Your task to perform on an android device: Open calendar and show me the fourth week of next month Image 0: 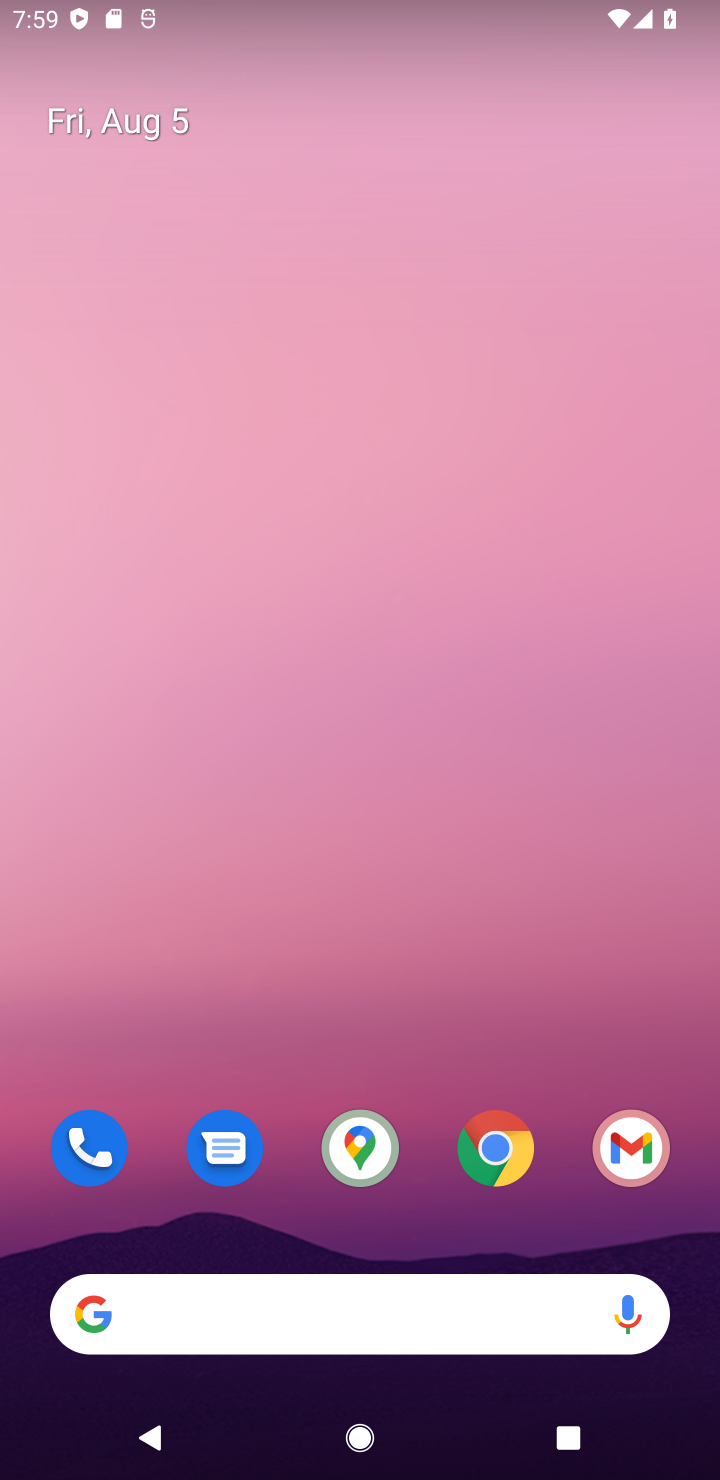
Step 0: drag from (290, 1236) to (350, 495)
Your task to perform on an android device: Open calendar and show me the fourth week of next month Image 1: 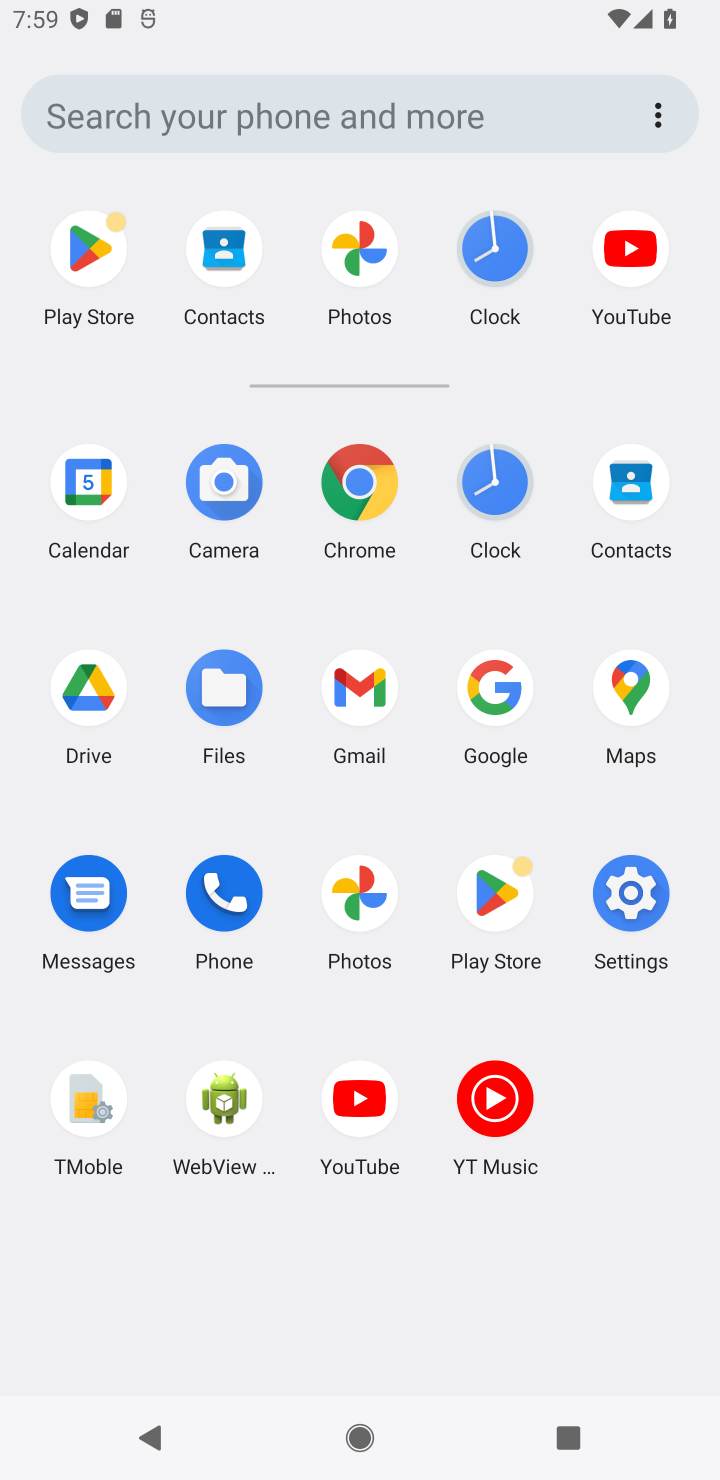
Step 1: click (85, 513)
Your task to perform on an android device: Open calendar and show me the fourth week of next month Image 2: 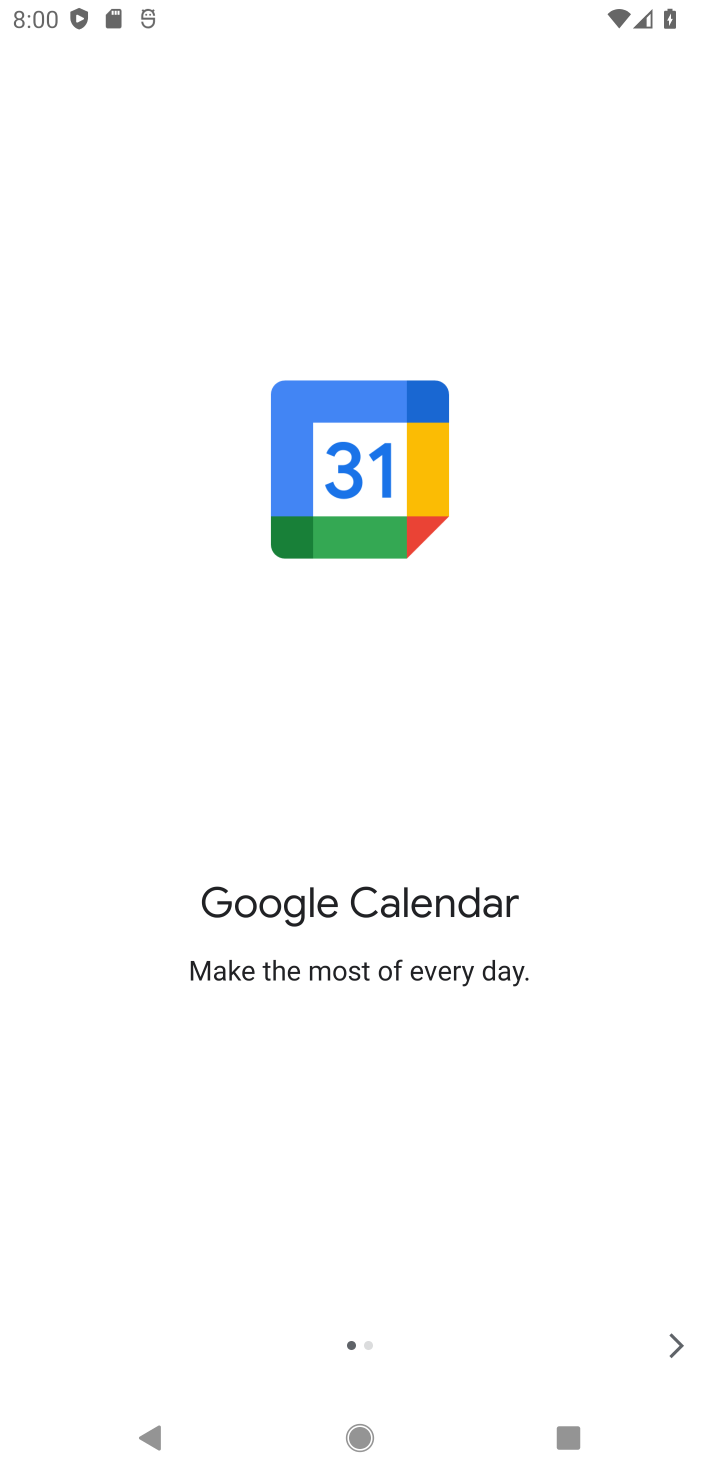
Step 2: click (664, 1338)
Your task to perform on an android device: Open calendar and show me the fourth week of next month Image 3: 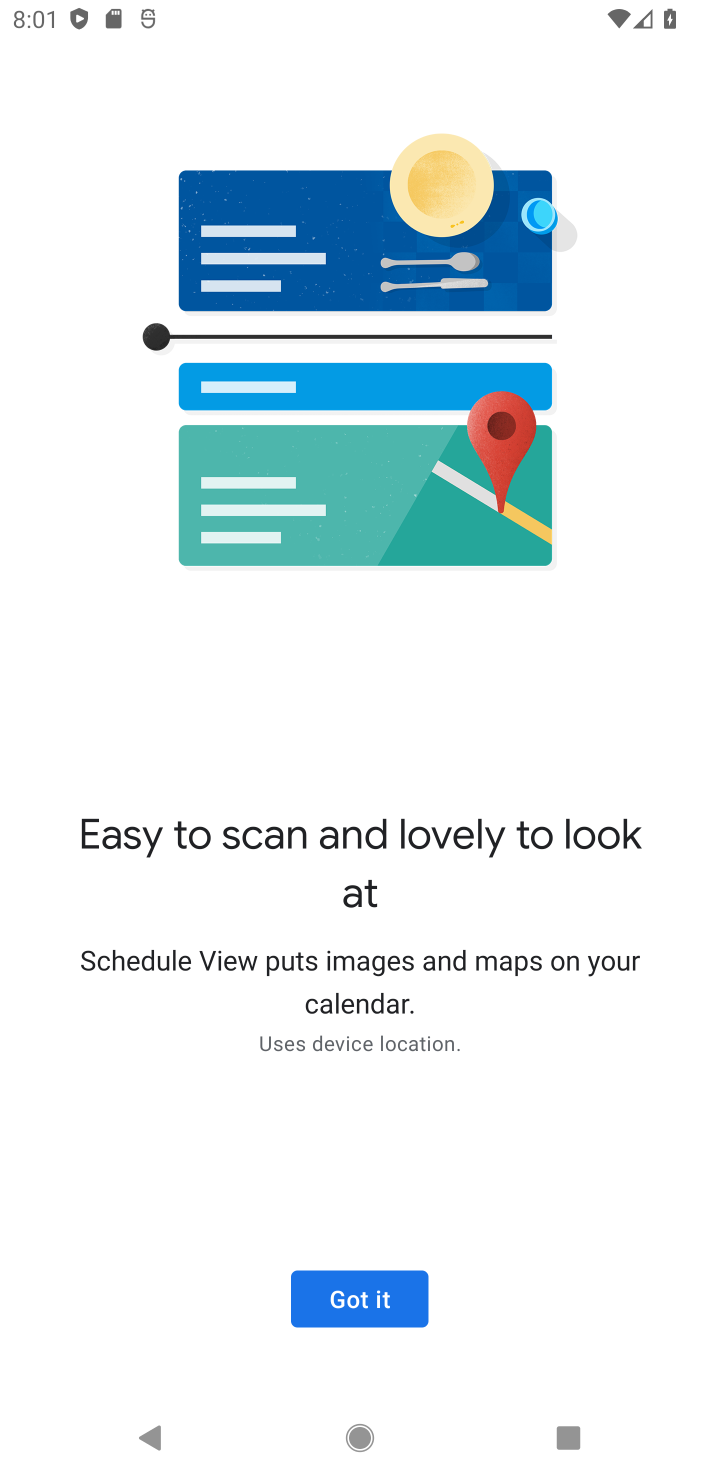
Step 3: click (338, 1307)
Your task to perform on an android device: Open calendar and show me the fourth week of next month Image 4: 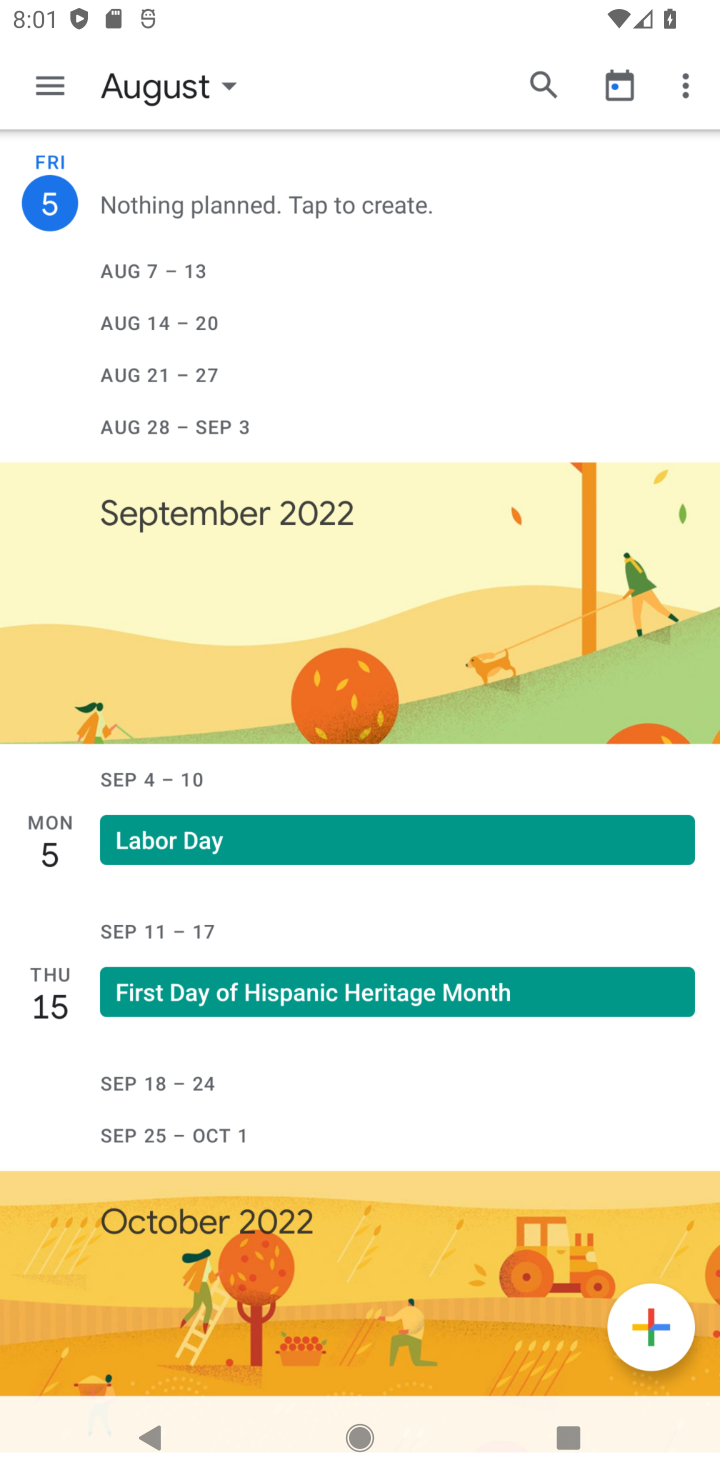
Step 4: task complete